Your task to perform on an android device: Turn off the flashlight Image 0: 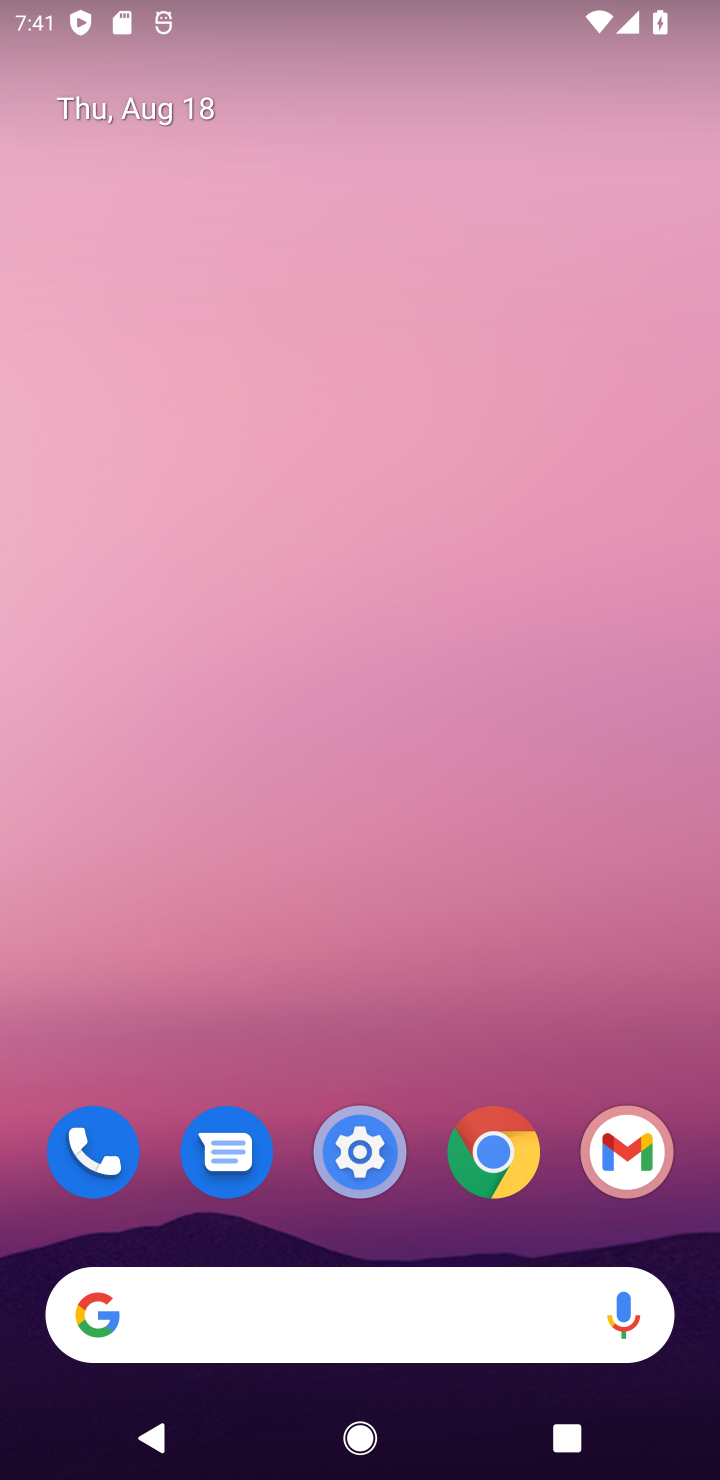
Step 0: press home button
Your task to perform on an android device: Turn off the flashlight Image 1: 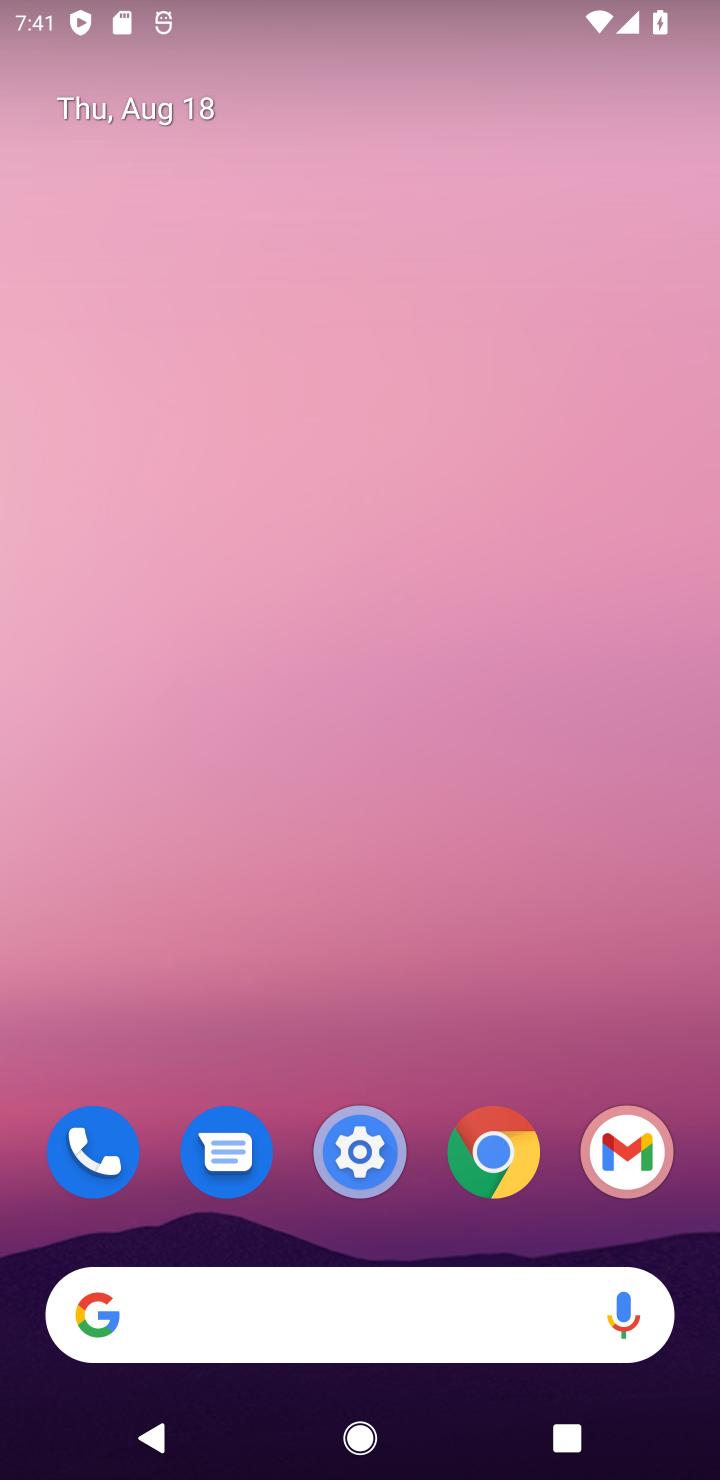
Step 1: drag from (354, 191) to (270, 1350)
Your task to perform on an android device: Turn off the flashlight Image 2: 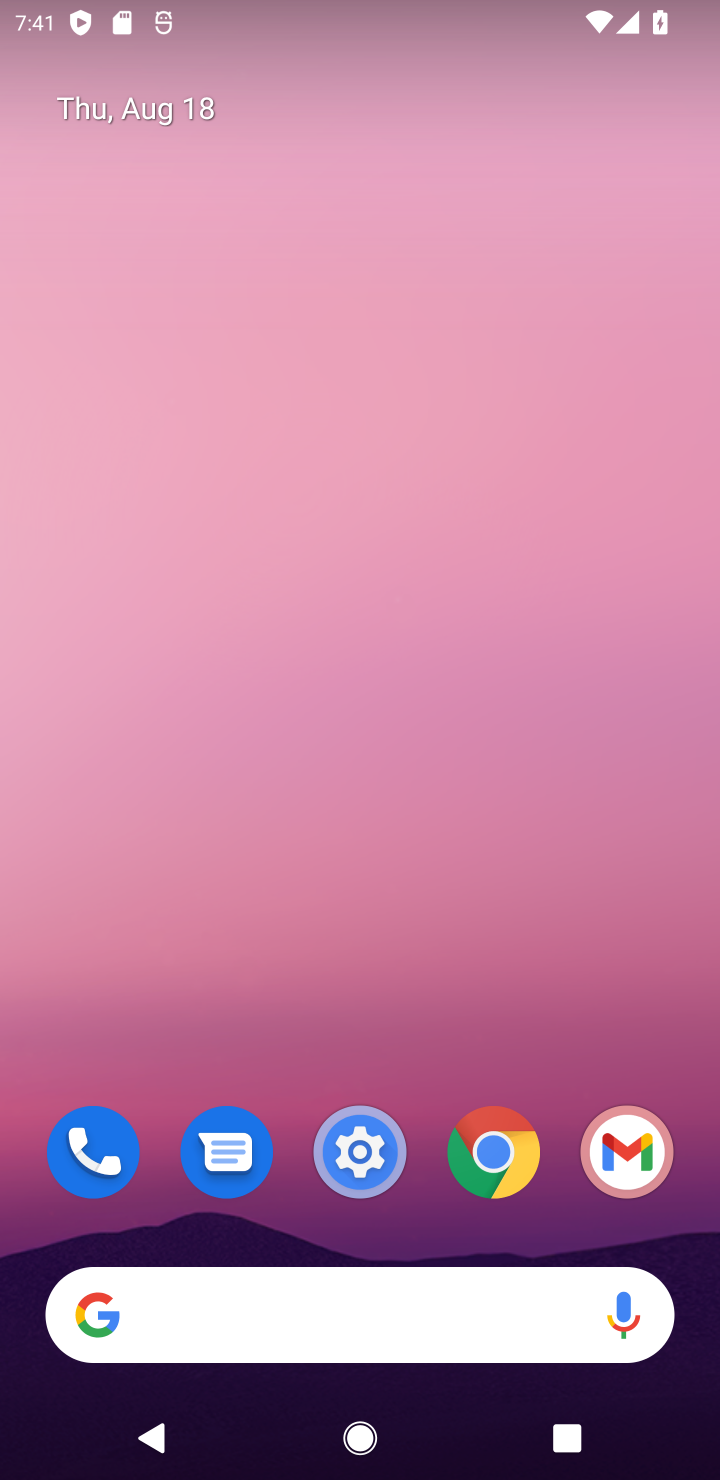
Step 2: drag from (338, 202) to (319, 950)
Your task to perform on an android device: Turn off the flashlight Image 3: 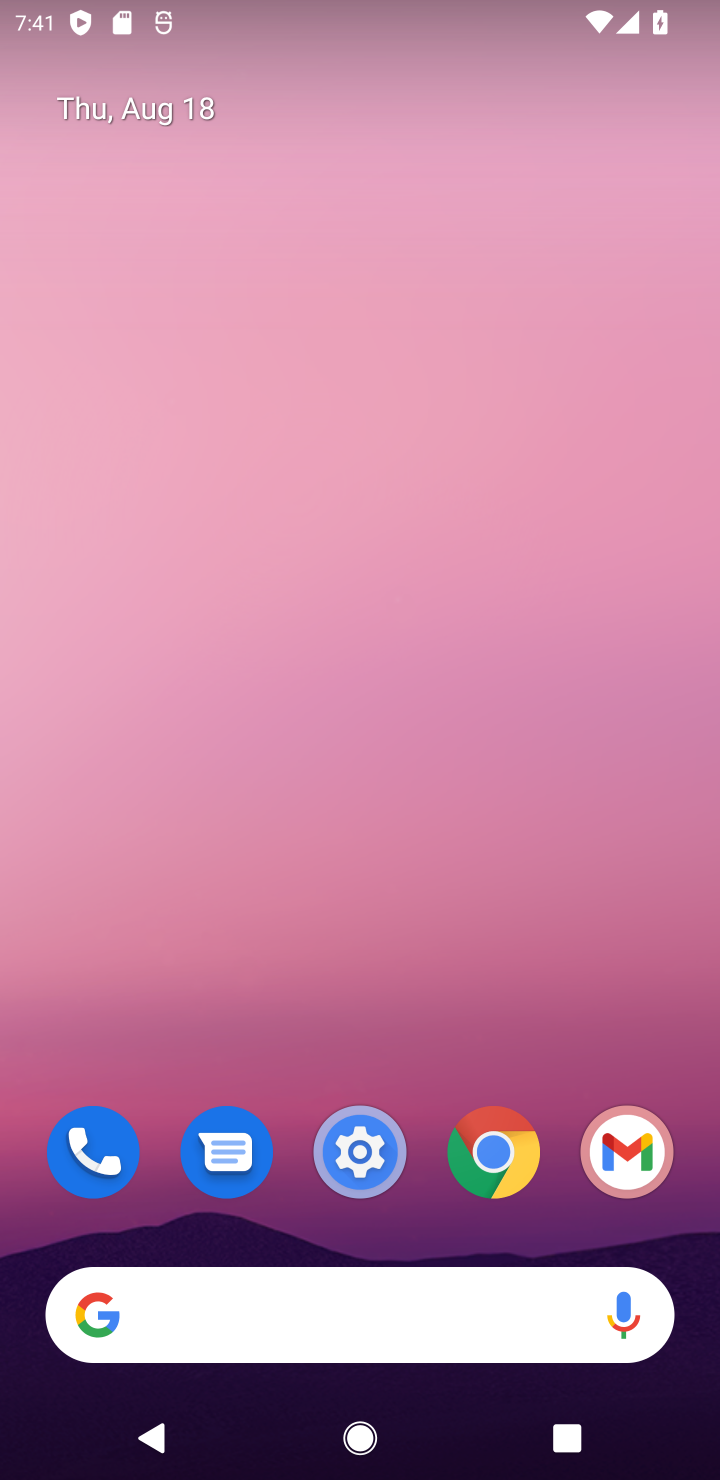
Step 3: drag from (358, 20) to (250, 1041)
Your task to perform on an android device: Turn off the flashlight Image 4: 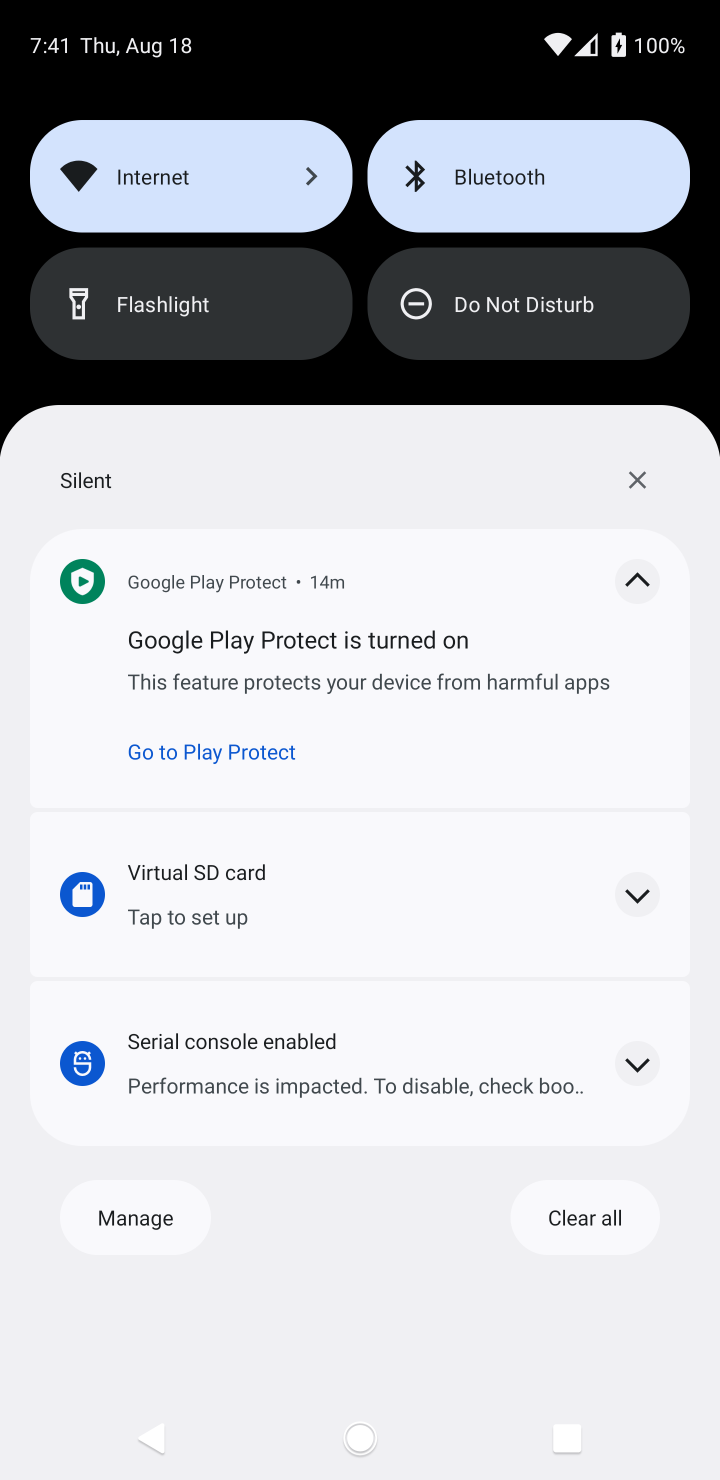
Step 4: click (161, 298)
Your task to perform on an android device: Turn off the flashlight Image 5: 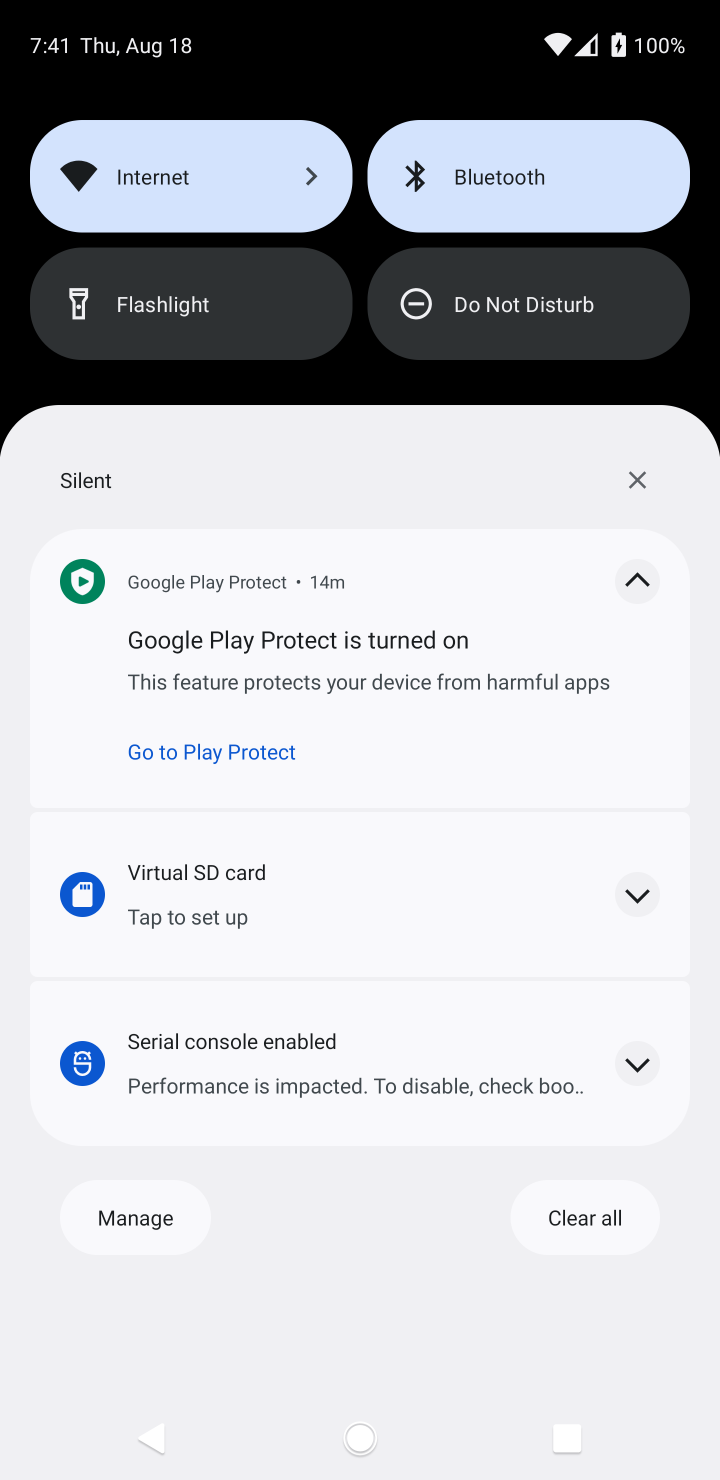
Step 5: task complete